Your task to perform on an android device: find snoozed emails in the gmail app Image 0: 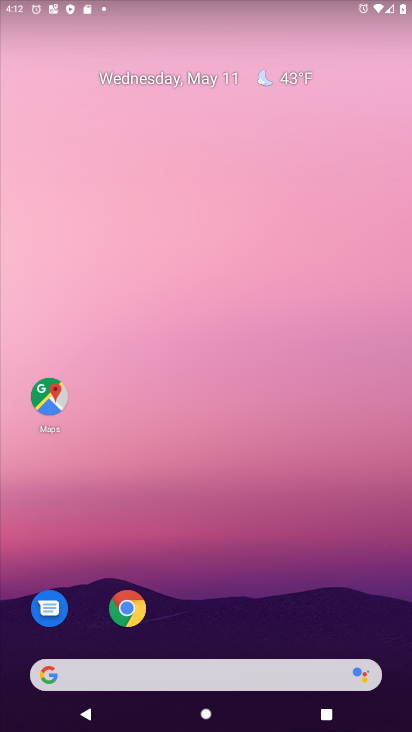
Step 0: drag from (234, 726) to (229, 110)
Your task to perform on an android device: find snoozed emails in the gmail app Image 1: 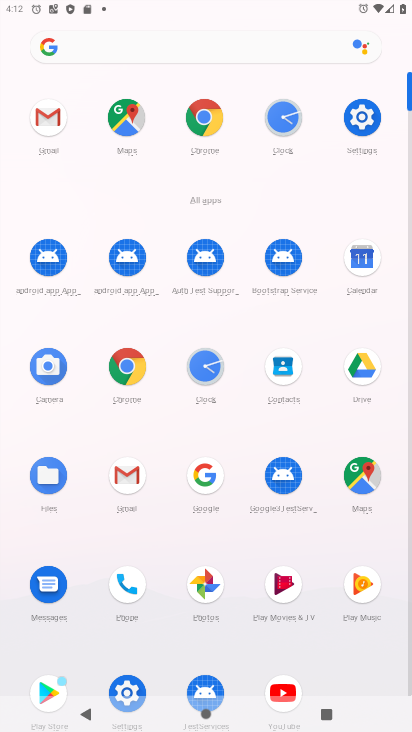
Step 1: click (125, 476)
Your task to perform on an android device: find snoozed emails in the gmail app Image 2: 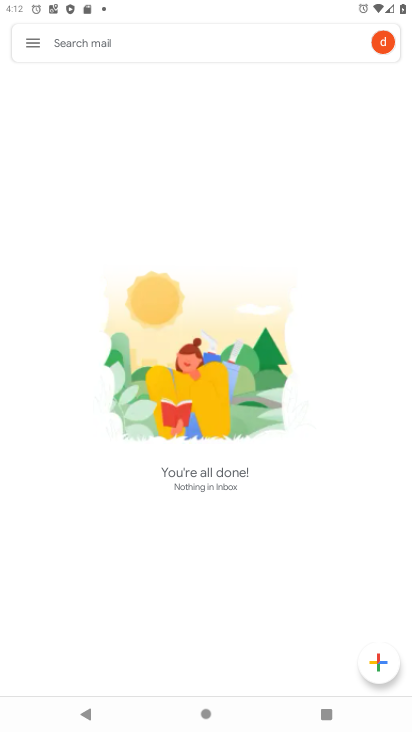
Step 2: click (32, 43)
Your task to perform on an android device: find snoozed emails in the gmail app Image 3: 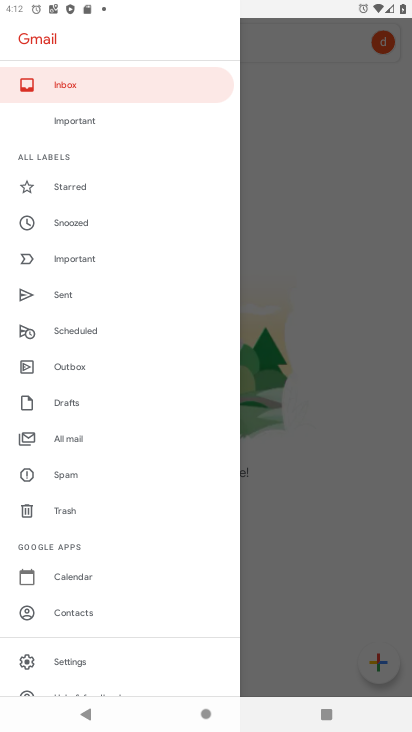
Step 3: click (78, 223)
Your task to perform on an android device: find snoozed emails in the gmail app Image 4: 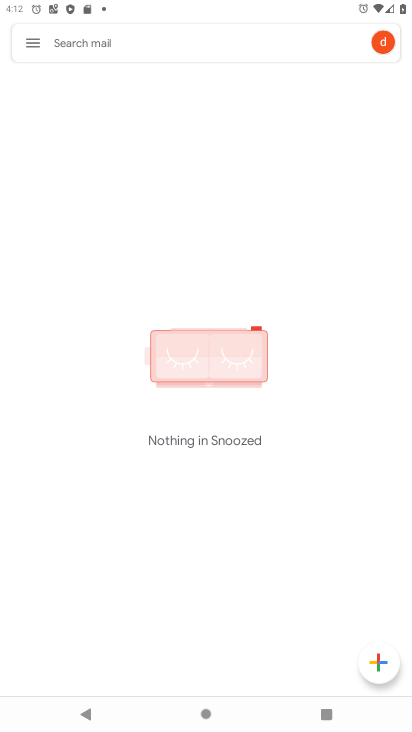
Step 4: task complete